Your task to perform on an android device: open chrome and create a bookmark for the current page Image 0: 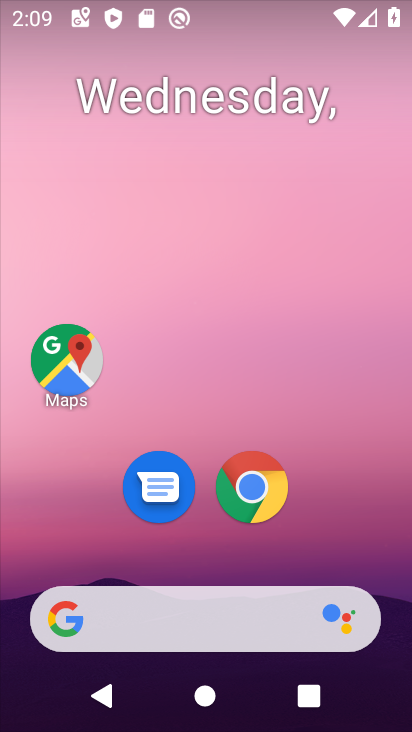
Step 0: drag from (348, 489) to (259, 114)
Your task to perform on an android device: open chrome and create a bookmark for the current page Image 1: 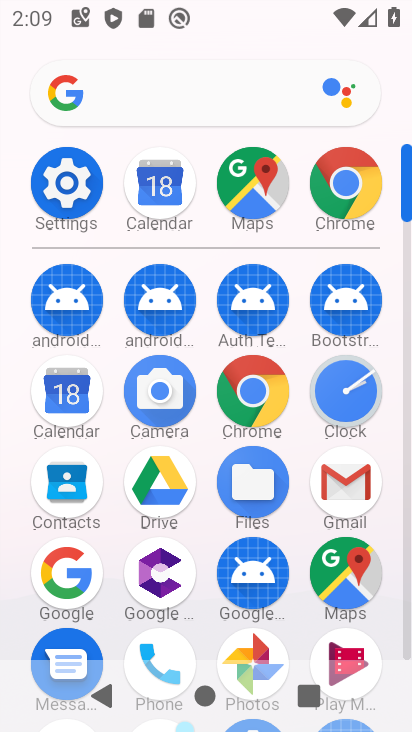
Step 1: click (344, 183)
Your task to perform on an android device: open chrome and create a bookmark for the current page Image 2: 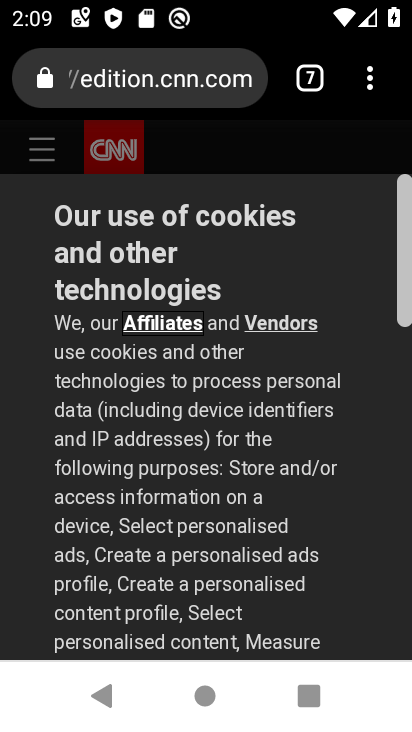
Step 2: click (362, 76)
Your task to perform on an android device: open chrome and create a bookmark for the current page Image 3: 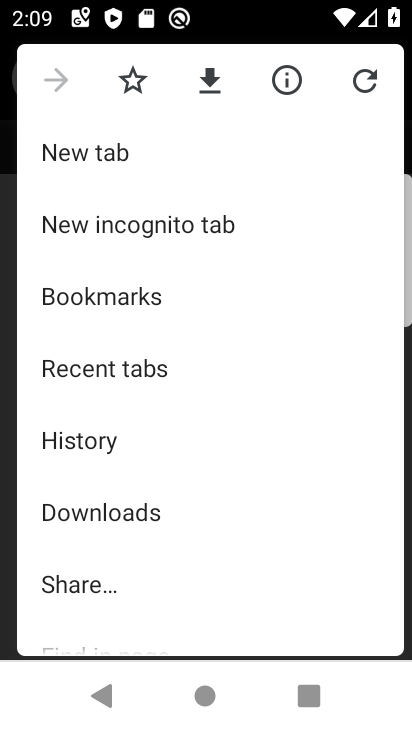
Step 3: click (126, 76)
Your task to perform on an android device: open chrome and create a bookmark for the current page Image 4: 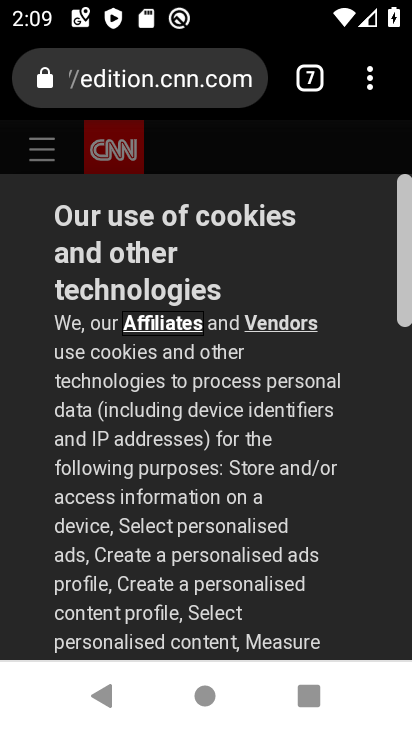
Step 4: task complete